Your task to perform on an android device: toggle improve location accuracy Image 0: 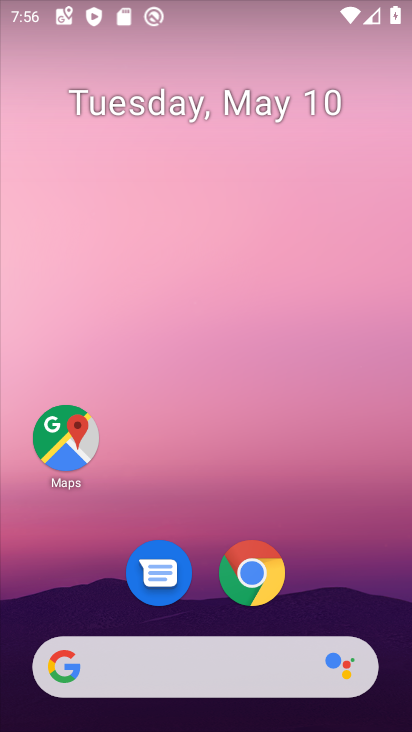
Step 0: drag from (385, 629) to (380, 142)
Your task to perform on an android device: toggle improve location accuracy Image 1: 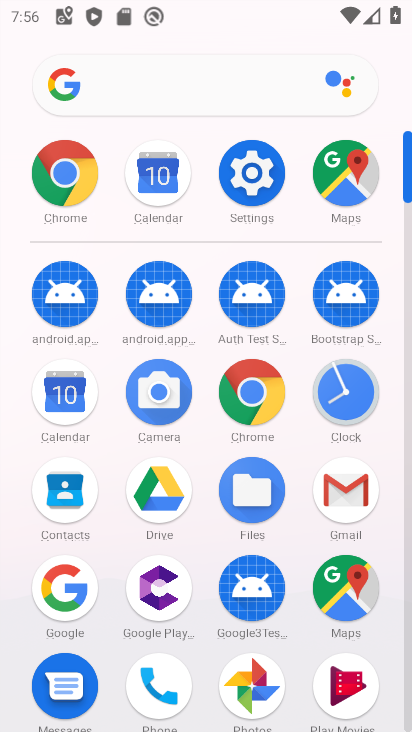
Step 1: click (250, 177)
Your task to perform on an android device: toggle improve location accuracy Image 2: 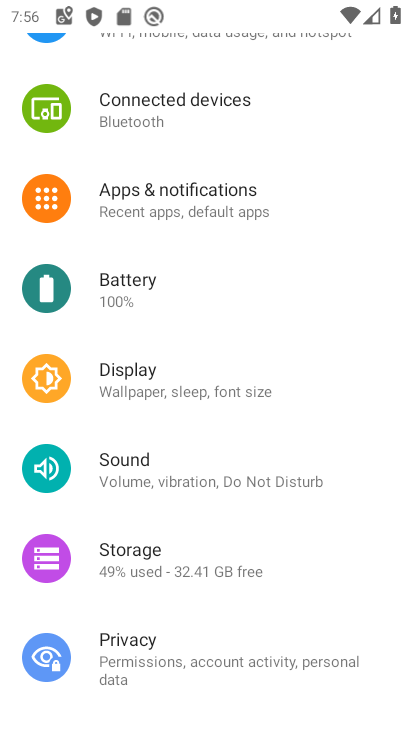
Step 2: drag from (229, 634) to (262, 249)
Your task to perform on an android device: toggle improve location accuracy Image 3: 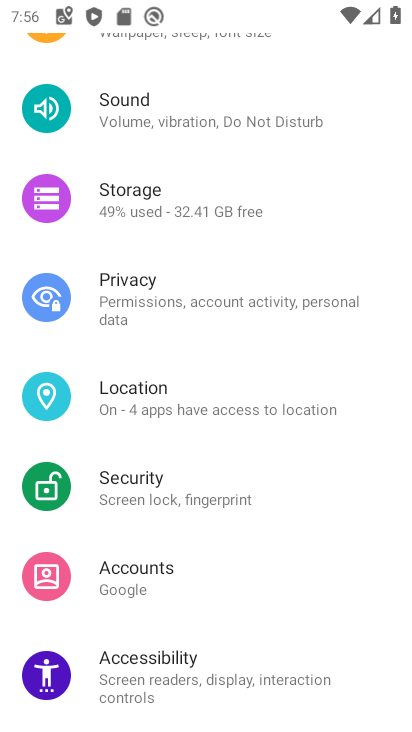
Step 3: click (210, 399)
Your task to perform on an android device: toggle improve location accuracy Image 4: 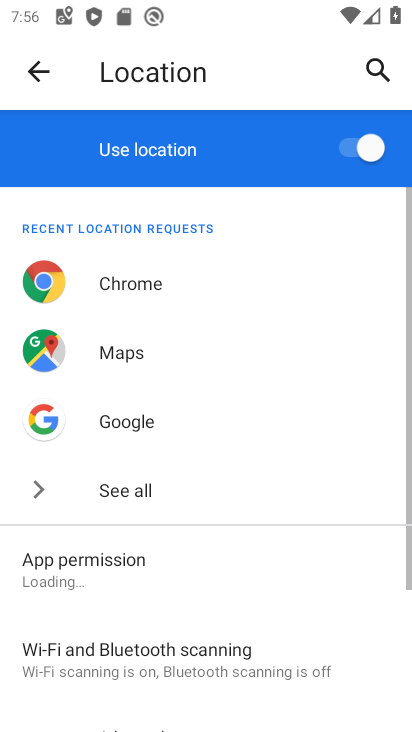
Step 4: drag from (198, 615) to (306, 195)
Your task to perform on an android device: toggle improve location accuracy Image 5: 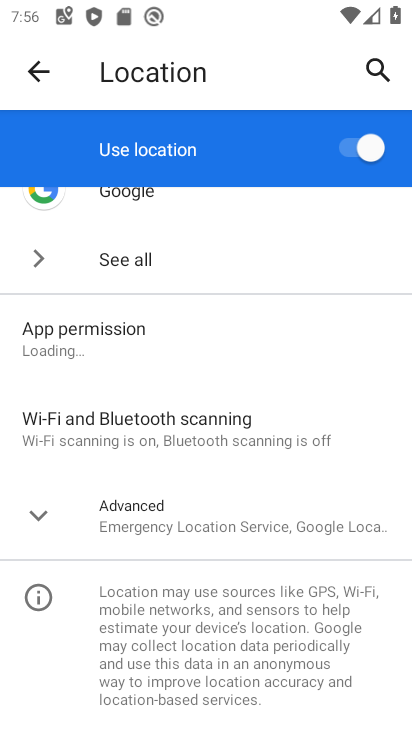
Step 5: click (210, 530)
Your task to perform on an android device: toggle improve location accuracy Image 6: 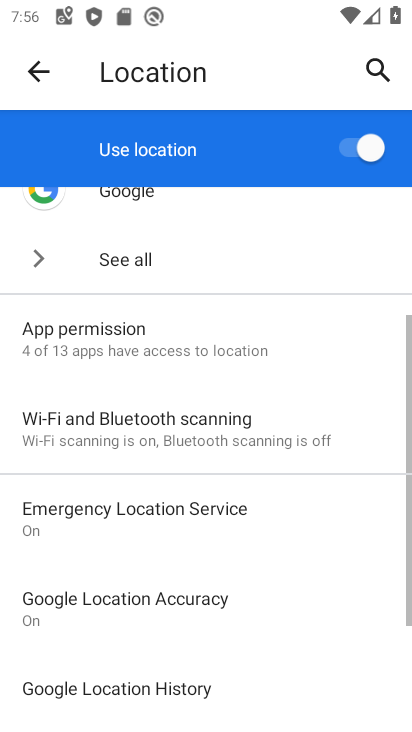
Step 6: drag from (252, 654) to (304, 319)
Your task to perform on an android device: toggle improve location accuracy Image 7: 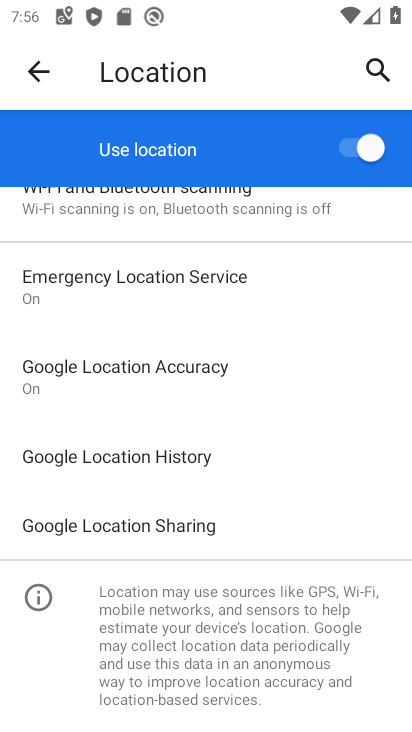
Step 7: click (163, 368)
Your task to perform on an android device: toggle improve location accuracy Image 8: 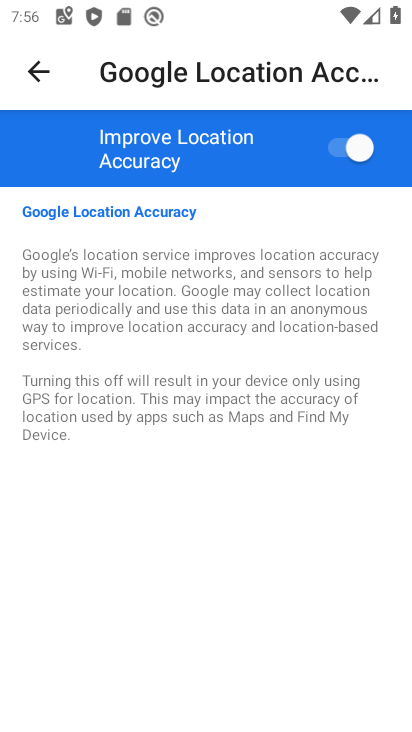
Step 8: click (331, 157)
Your task to perform on an android device: toggle improve location accuracy Image 9: 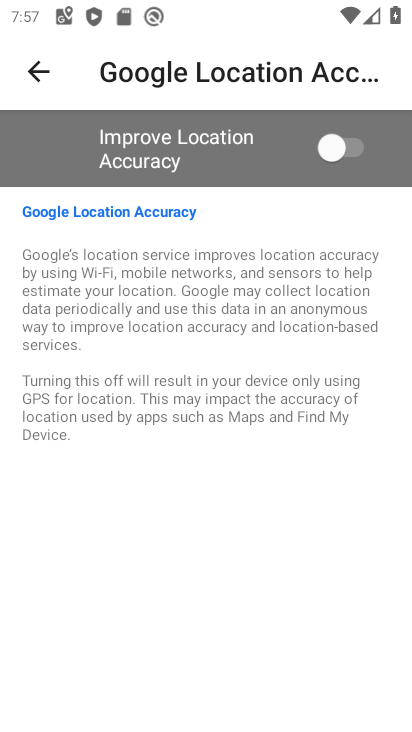
Step 9: task complete